Your task to perform on an android device: Search for Italian restaurants on Maps Image 0: 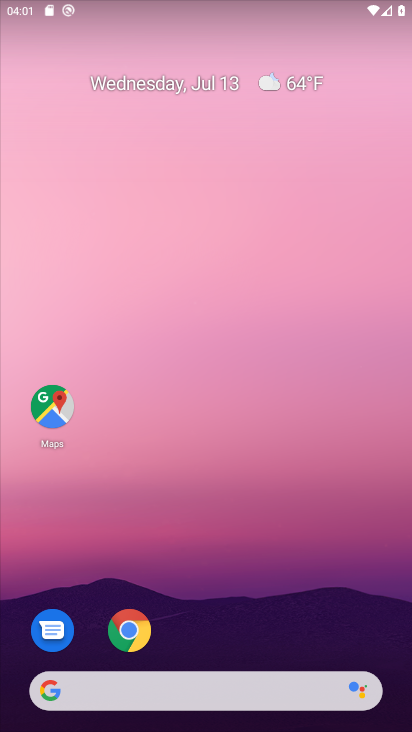
Step 0: click (59, 416)
Your task to perform on an android device: Search for Italian restaurants on Maps Image 1: 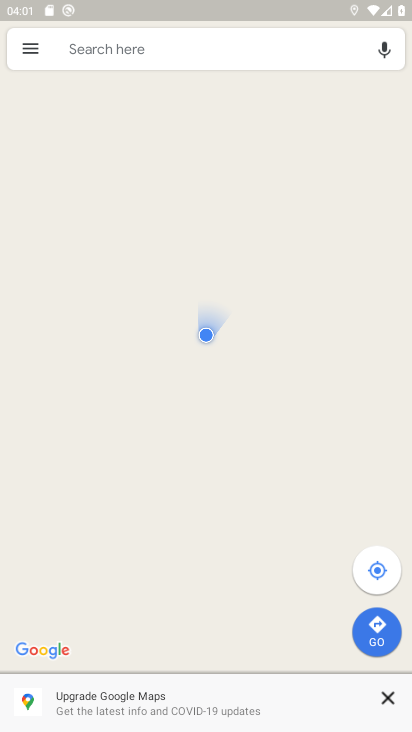
Step 1: click (260, 33)
Your task to perform on an android device: Search for Italian restaurants on Maps Image 2: 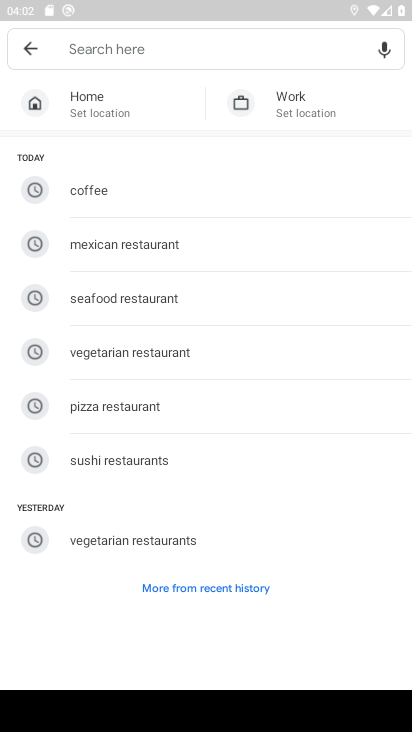
Step 2: type "italian restaurant"
Your task to perform on an android device: Search for Italian restaurants on Maps Image 3: 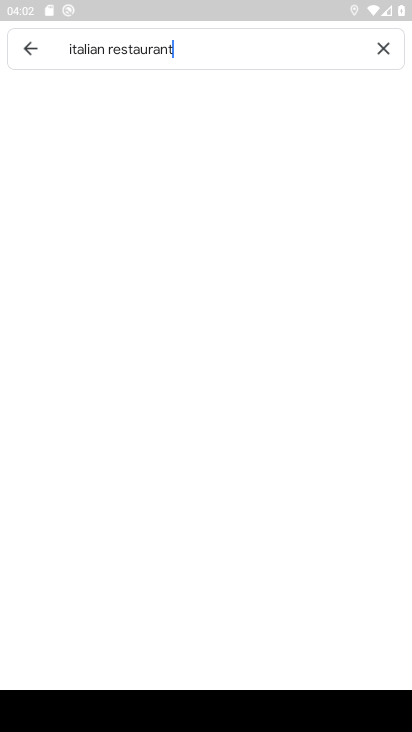
Step 3: type ""
Your task to perform on an android device: Search for Italian restaurants on Maps Image 4: 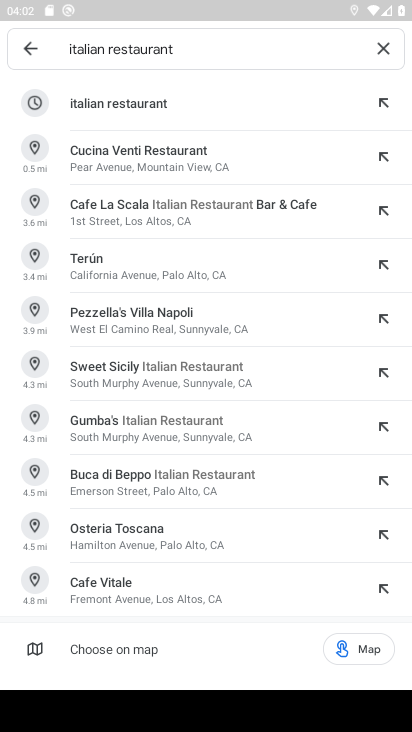
Step 4: click (223, 115)
Your task to perform on an android device: Search for Italian restaurants on Maps Image 5: 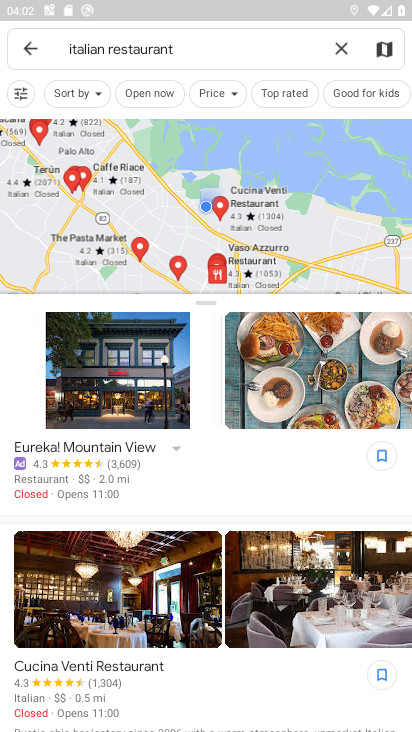
Step 5: task complete